Your task to perform on an android device: Search for seafood restaurants on Google Maps Image 0: 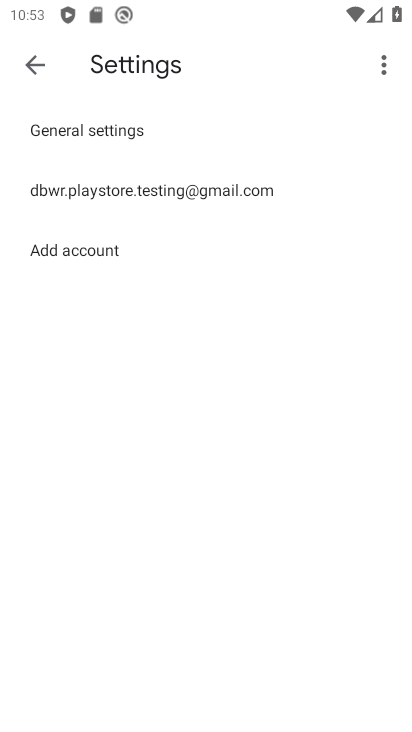
Step 0: press back button
Your task to perform on an android device: Search for seafood restaurants on Google Maps Image 1: 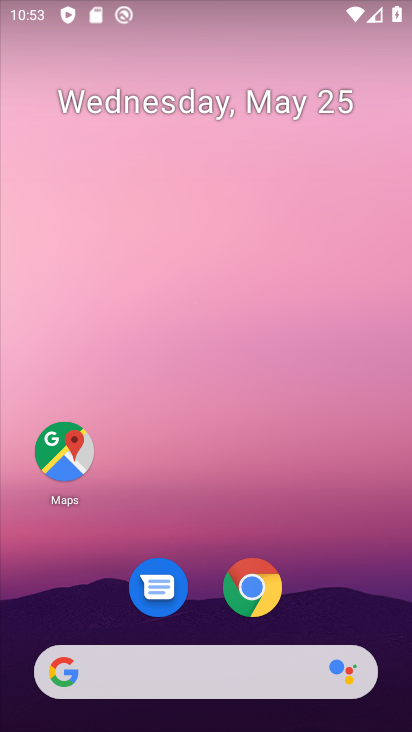
Step 1: drag from (371, 582) to (310, 1)
Your task to perform on an android device: Search for seafood restaurants on Google Maps Image 2: 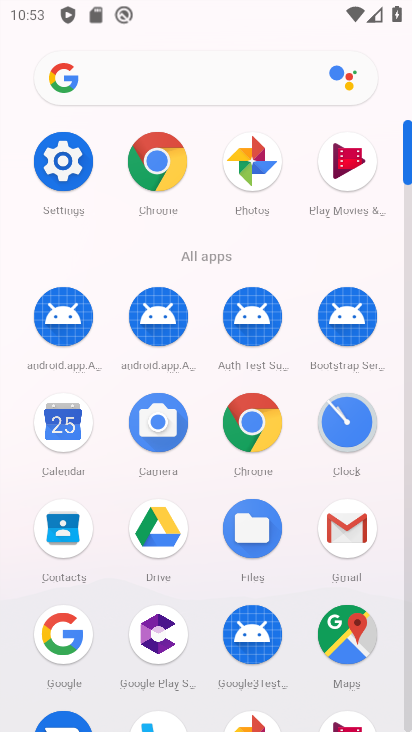
Step 2: click (346, 635)
Your task to perform on an android device: Search for seafood restaurants on Google Maps Image 3: 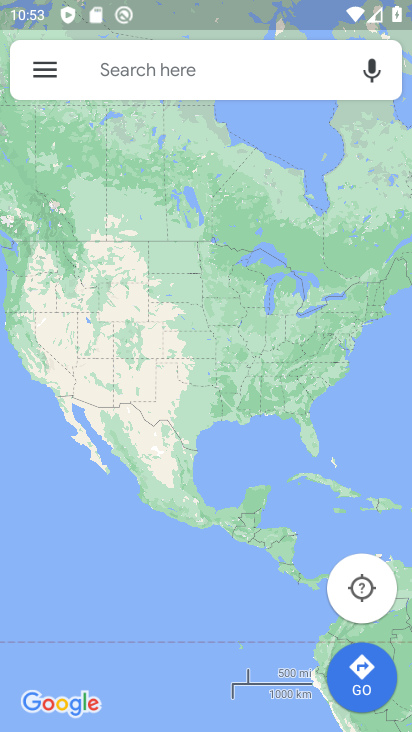
Step 3: click (228, 58)
Your task to perform on an android device: Search for seafood restaurants on Google Maps Image 4: 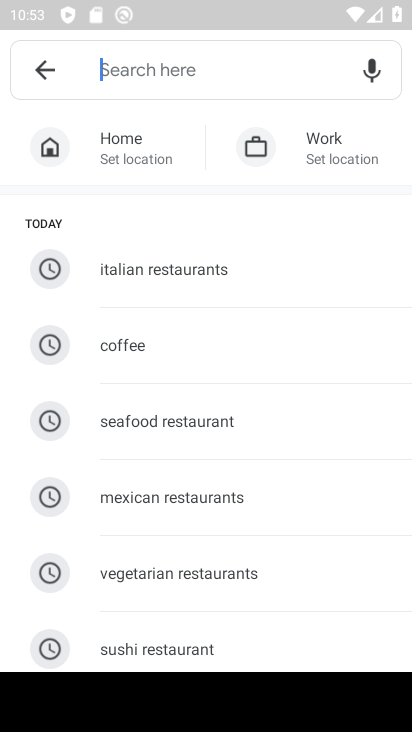
Step 4: click (157, 425)
Your task to perform on an android device: Search for seafood restaurants on Google Maps Image 5: 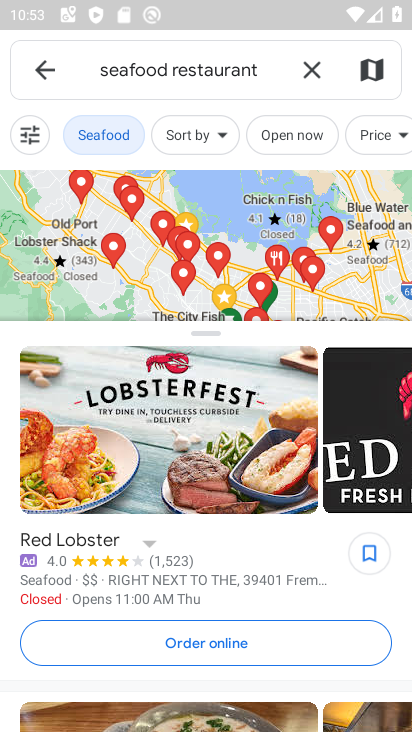
Step 5: task complete